Your task to perform on an android device: check android version Image 0: 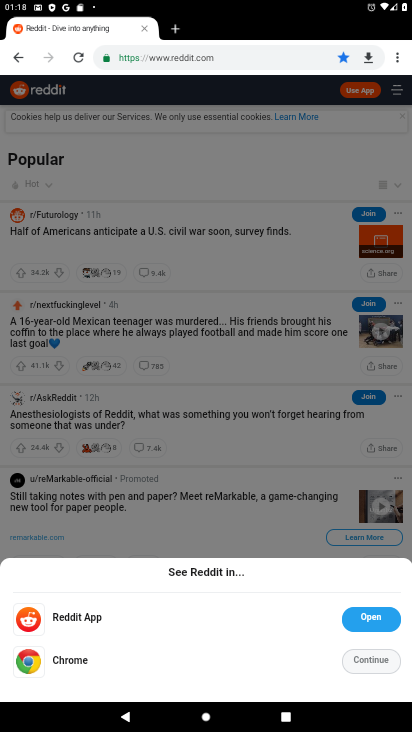
Step 0: press home button
Your task to perform on an android device: check android version Image 1: 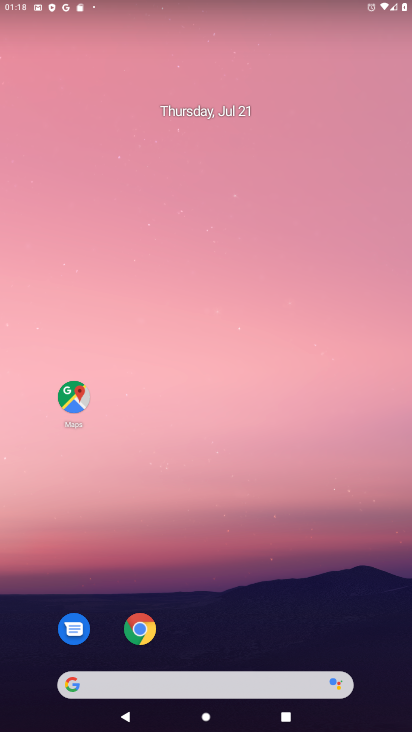
Step 1: drag from (220, 632) to (278, 78)
Your task to perform on an android device: check android version Image 2: 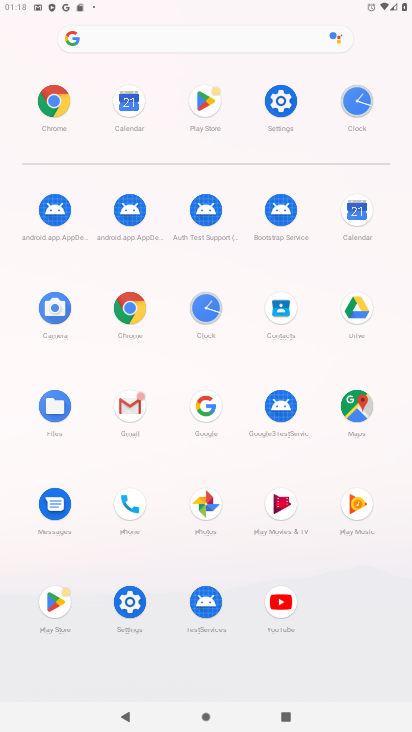
Step 2: click (127, 601)
Your task to perform on an android device: check android version Image 3: 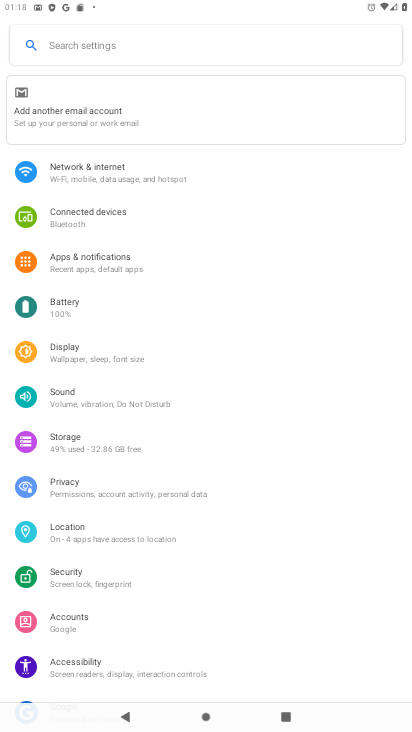
Step 3: drag from (140, 630) to (163, 131)
Your task to perform on an android device: check android version Image 4: 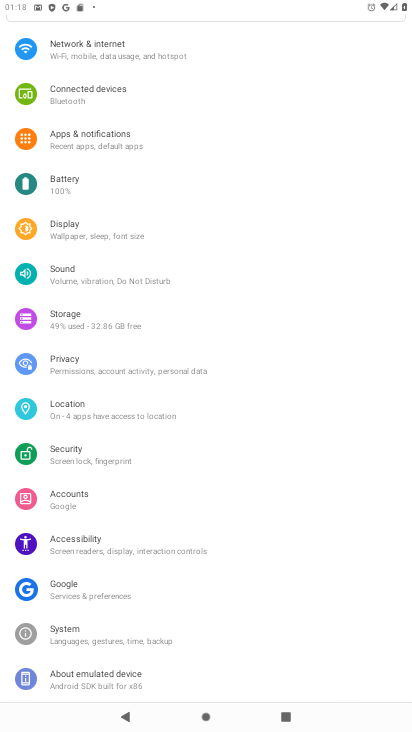
Step 4: click (95, 685)
Your task to perform on an android device: check android version Image 5: 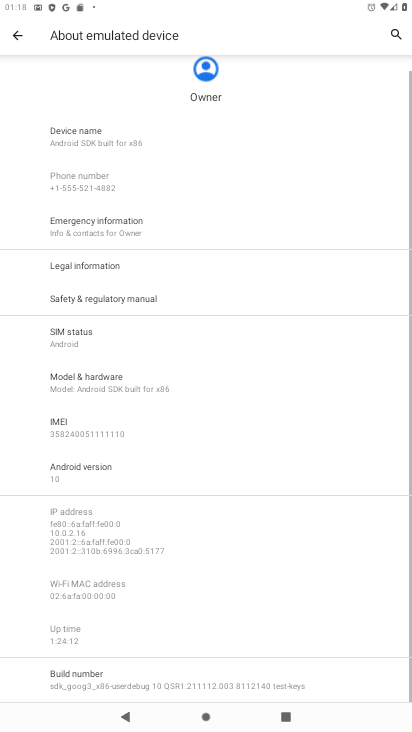
Step 5: click (94, 474)
Your task to perform on an android device: check android version Image 6: 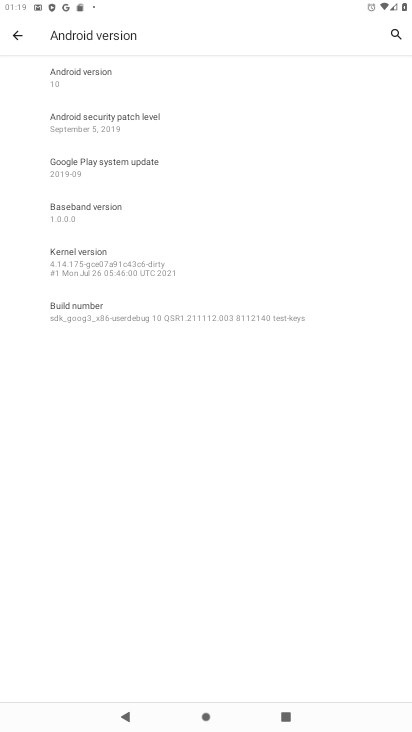
Step 6: task complete